Your task to perform on an android device: add a label to a message in the gmail app Image 0: 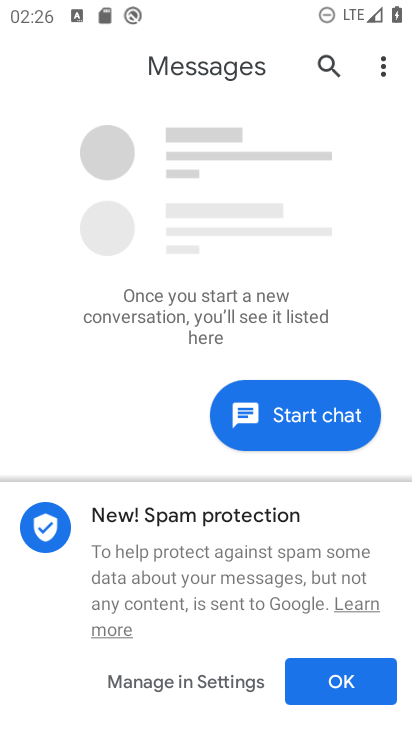
Step 0: press home button
Your task to perform on an android device: add a label to a message in the gmail app Image 1: 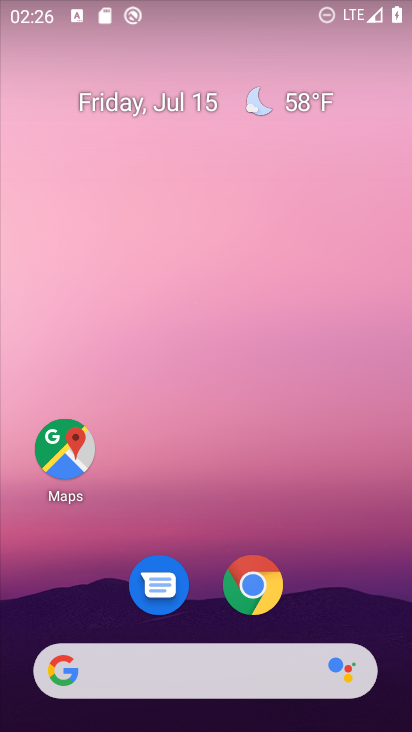
Step 1: drag from (324, 589) to (263, 47)
Your task to perform on an android device: add a label to a message in the gmail app Image 2: 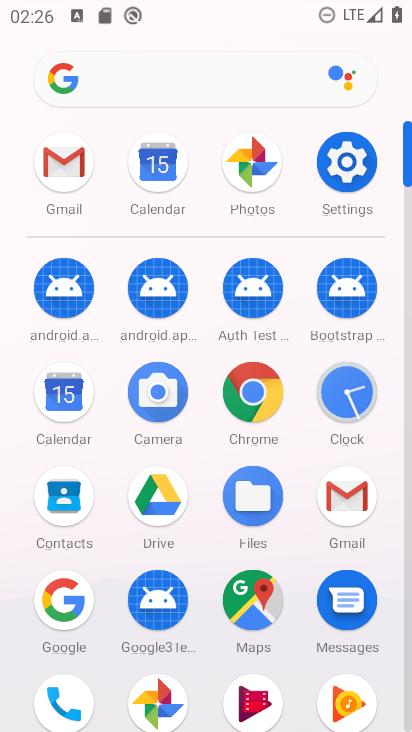
Step 2: click (71, 156)
Your task to perform on an android device: add a label to a message in the gmail app Image 3: 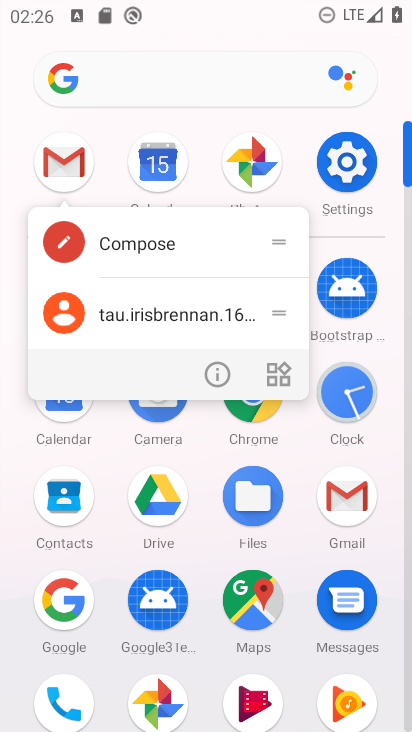
Step 3: click (70, 160)
Your task to perform on an android device: add a label to a message in the gmail app Image 4: 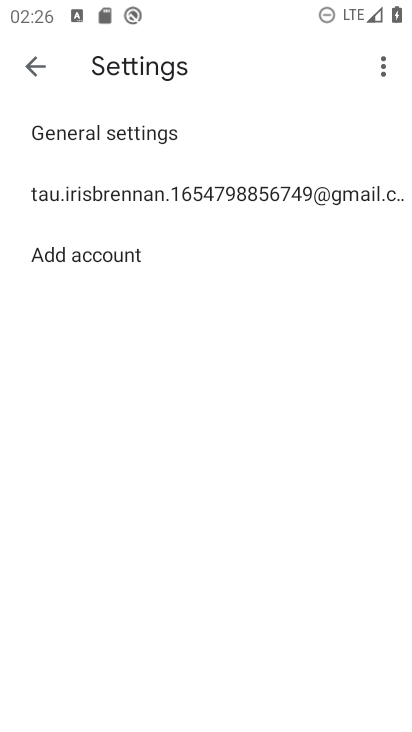
Step 4: click (40, 62)
Your task to perform on an android device: add a label to a message in the gmail app Image 5: 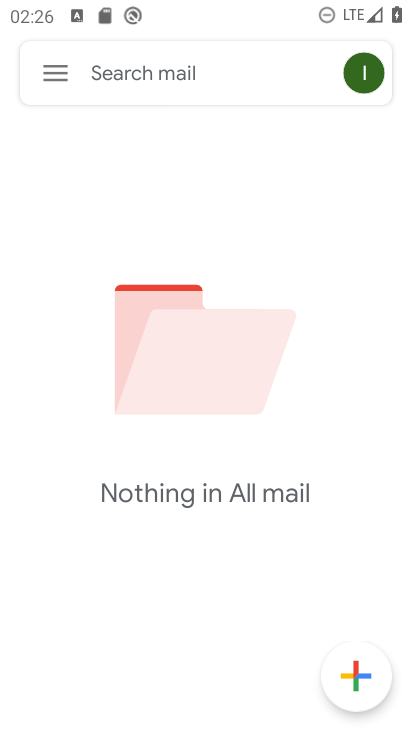
Step 5: task complete